Your task to perform on an android device: Show me the alarms in the clock app Image 0: 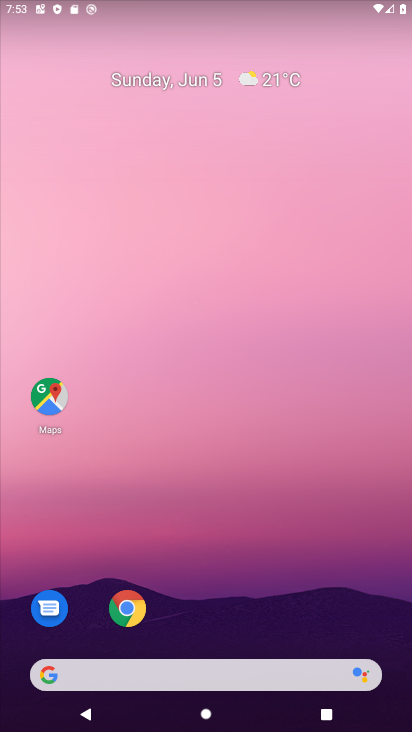
Step 0: drag from (350, 533) to (354, 181)
Your task to perform on an android device: Show me the alarms in the clock app Image 1: 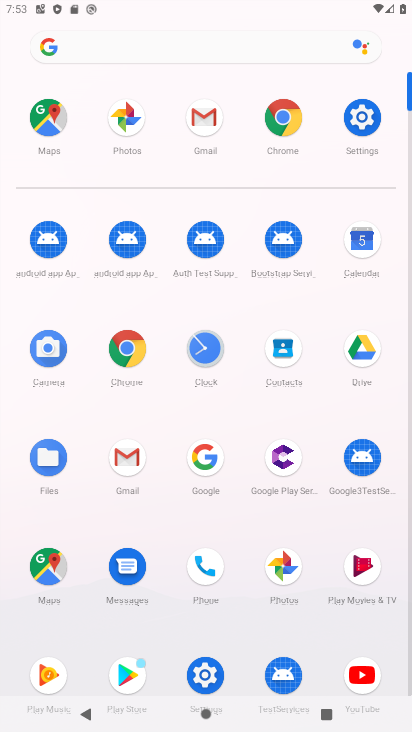
Step 1: click (216, 341)
Your task to perform on an android device: Show me the alarms in the clock app Image 2: 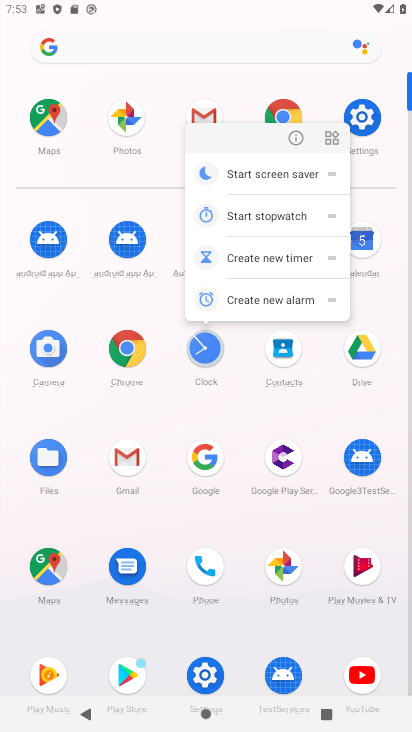
Step 2: click (211, 349)
Your task to perform on an android device: Show me the alarms in the clock app Image 3: 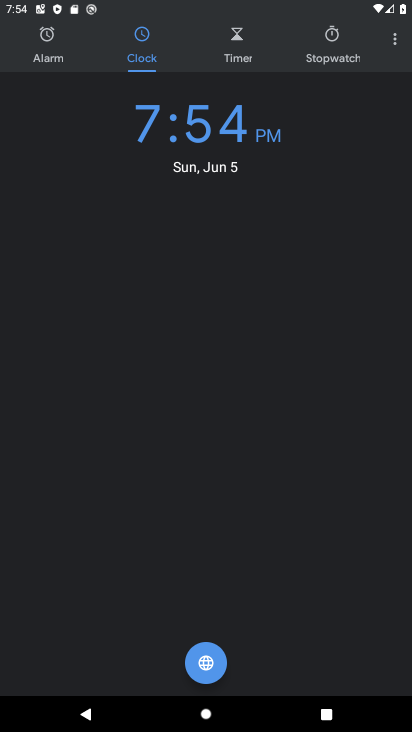
Step 3: click (68, 56)
Your task to perform on an android device: Show me the alarms in the clock app Image 4: 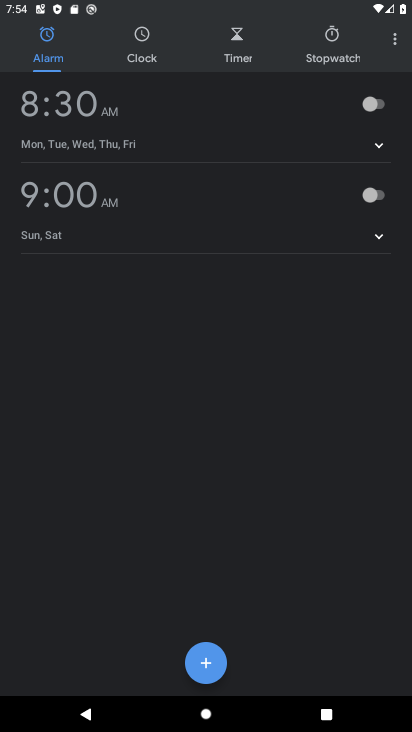
Step 4: task complete